Your task to perform on an android device: open app "Adobe Express: Graphic Design" Image 0: 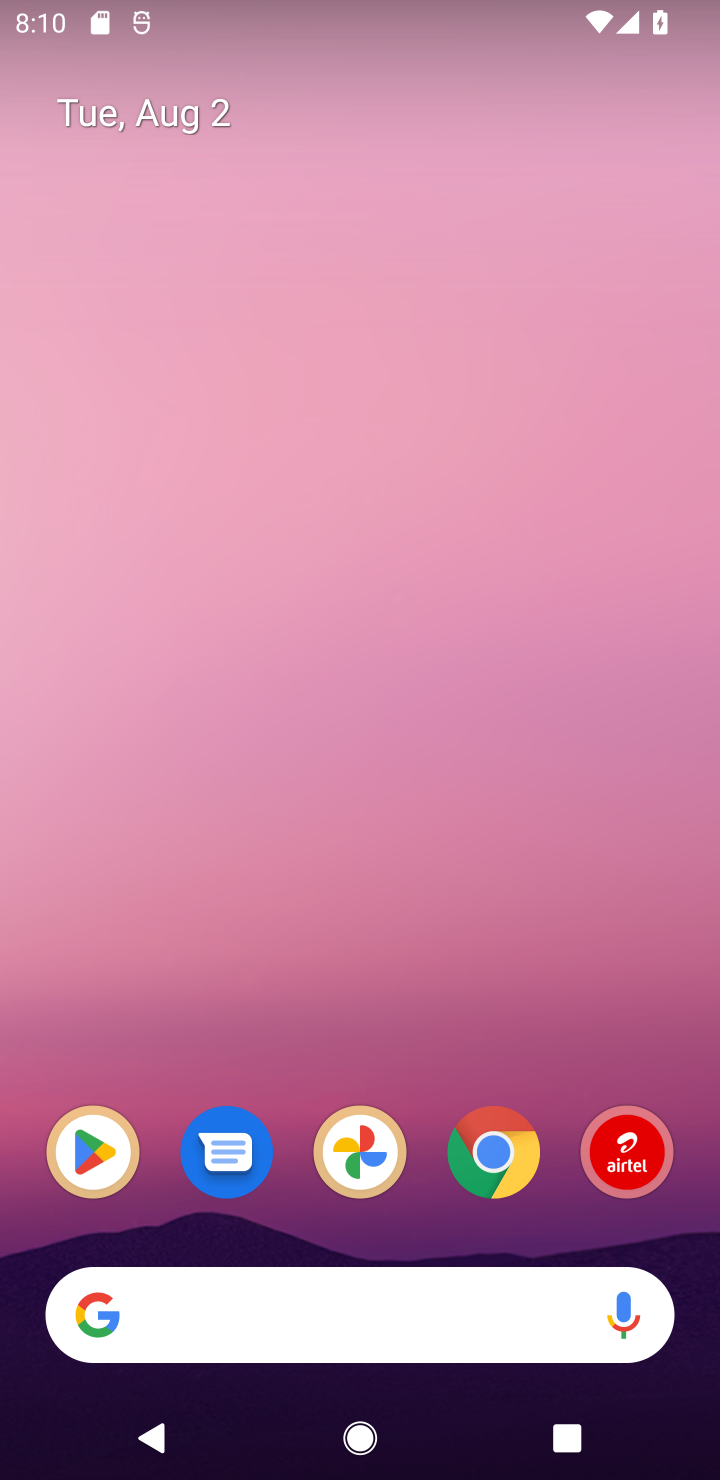
Step 0: click (75, 1165)
Your task to perform on an android device: open app "Adobe Express: Graphic Design" Image 1: 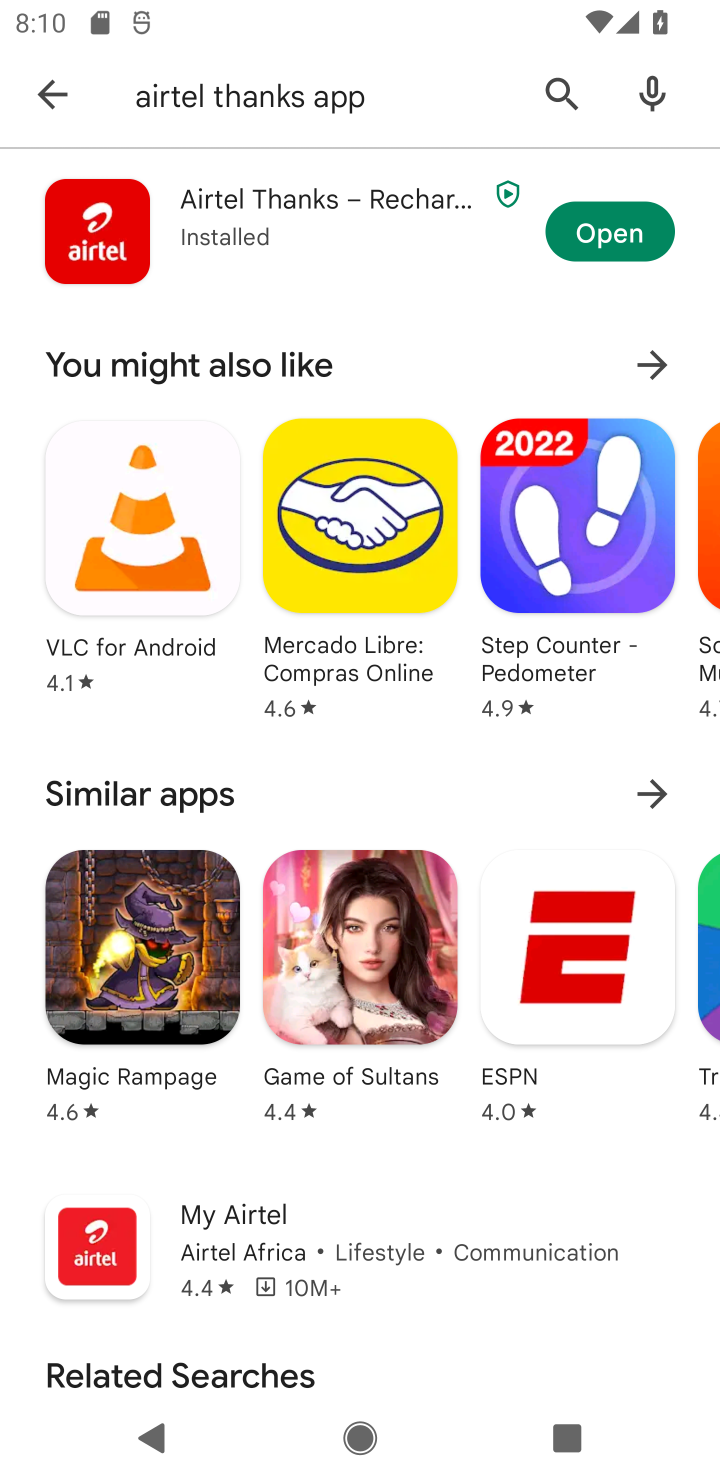
Step 1: click (572, 242)
Your task to perform on an android device: open app "Adobe Express: Graphic Design" Image 2: 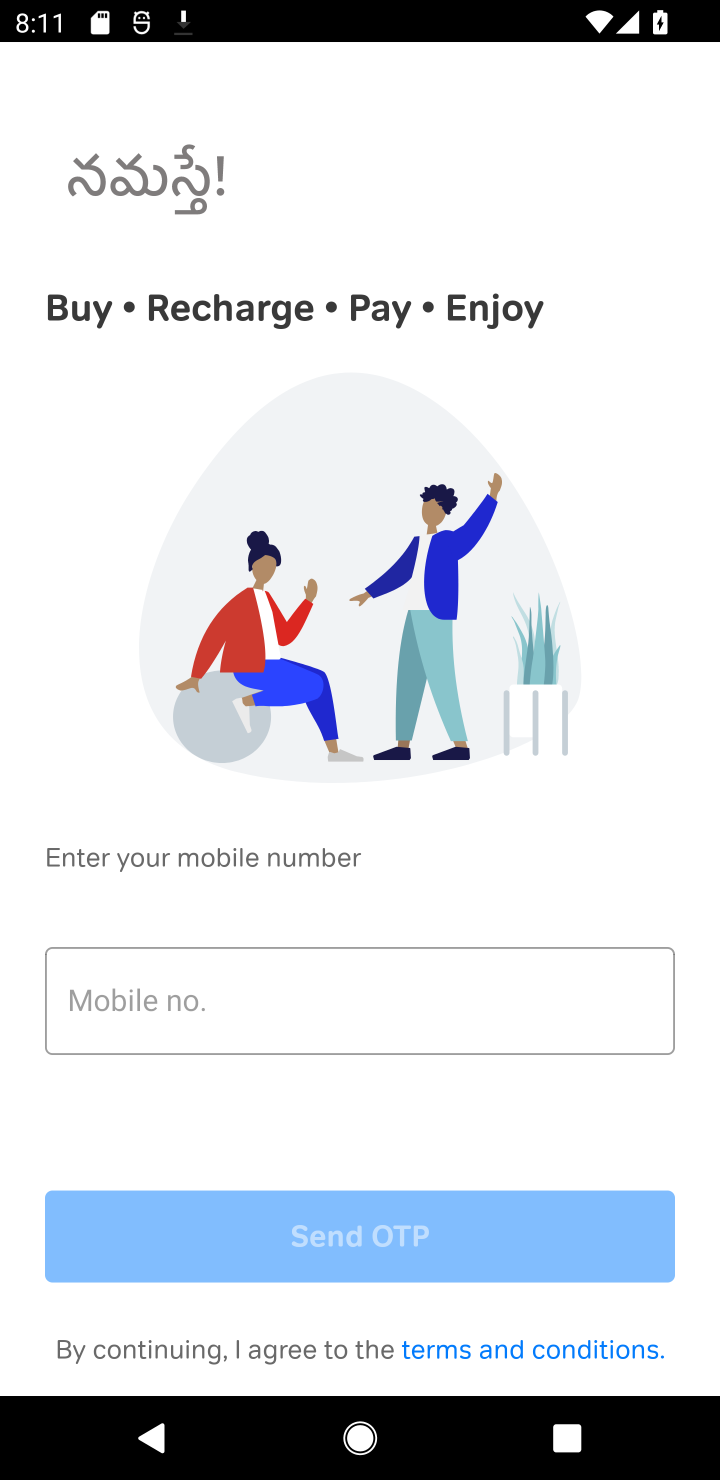
Step 2: task complete